Your task to perform on an android device: See recent photos Image 0: 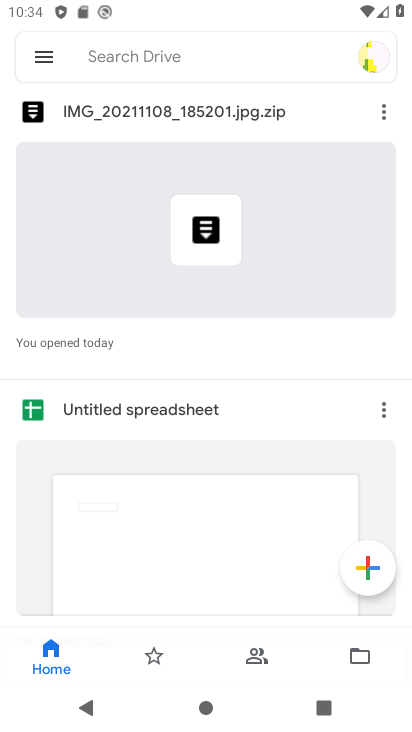
Step 0: press back button
Your task to perform on an android device: See recent photos Image 1: 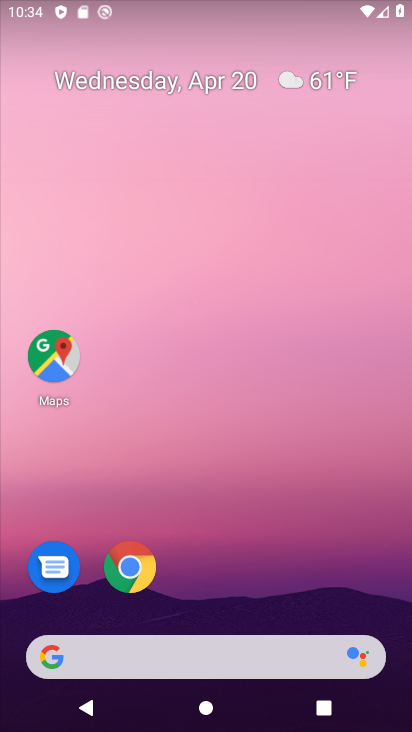
Step 1: drag from (249, 404) to (327, 57)
Your task to perform on an android device: See recent photos Image 2: 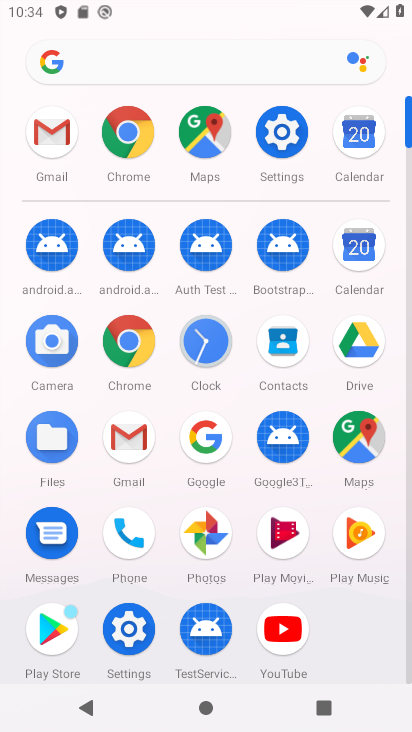
Step 2: click (206, 523)
Your task to perform on an android device: See recent photos Image 3: 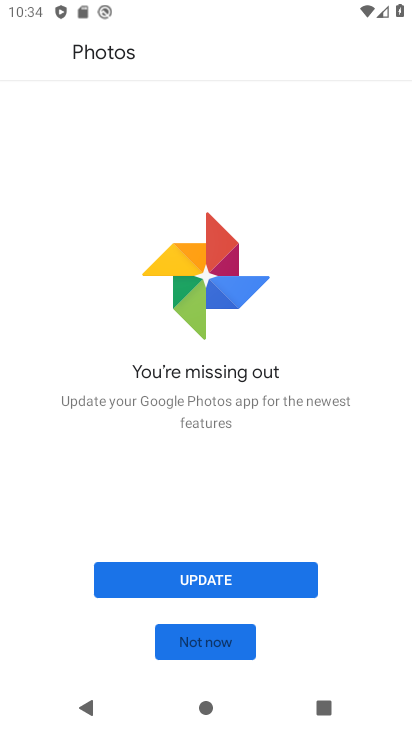
Step 3: click (201, 653)
Your task to perform on an android device: See recent photos Image 4: 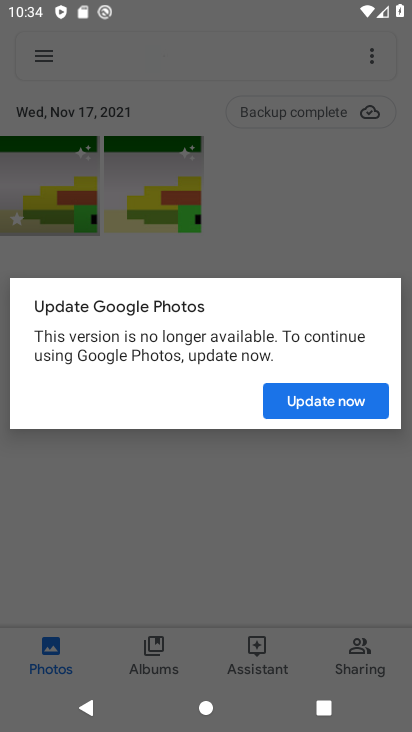
Step 4: click (322, 399)
Your task to perform on an android device: See recent photos Image 5: 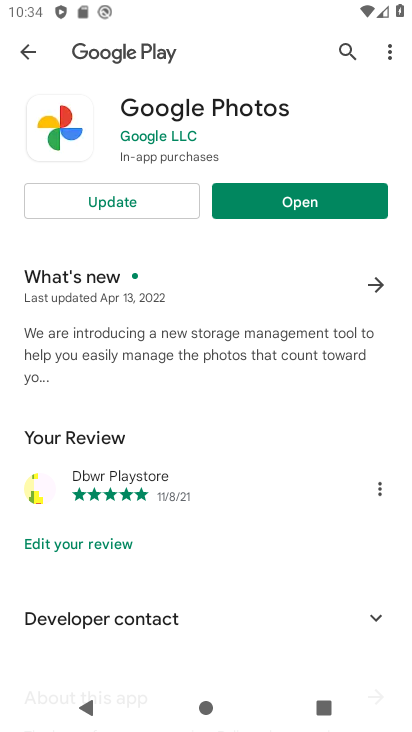
Step 5: click (297, 202)
Your task to perform on an android device: See recent photos Image 6: 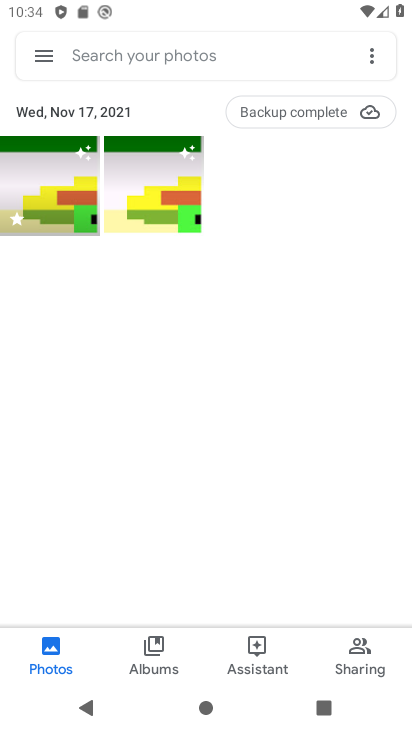
Step 6: click (54, 651)
Your task to perform on an android device: See recent photos Image 7: 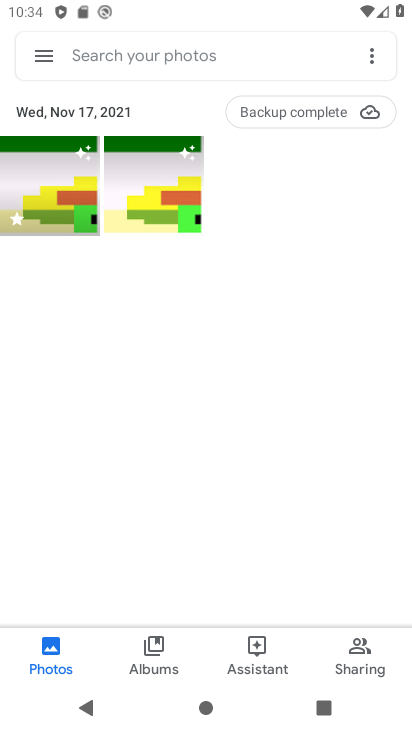
Step 7: task complete